Your task to perform on an android device: turn smart compose on in the gmail app Image 0: 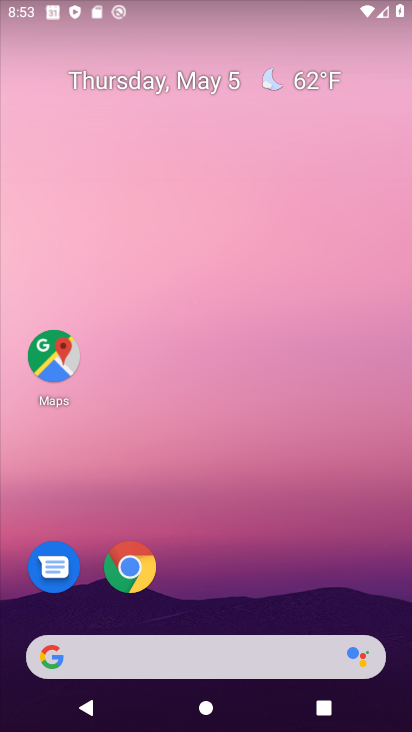
Step 0: drag from (227, 727) to (224, 204)
Your task to perform on an android device: turn smart compose on in the gmail app Image 1: 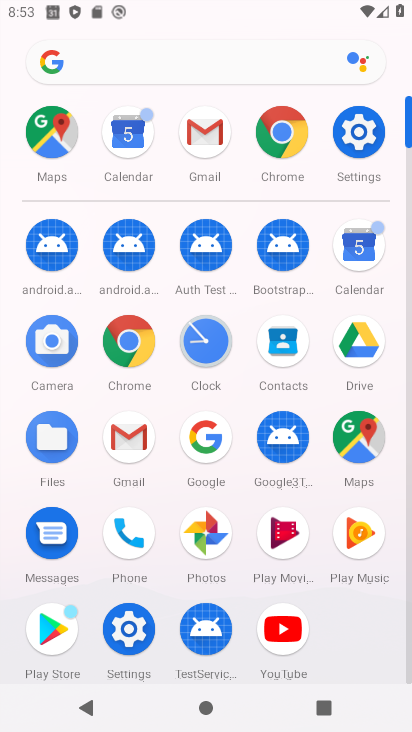
Step 1: click (124, 441)
Your task to perform on an android device: turn smart compose on in the gmail app Image 2: 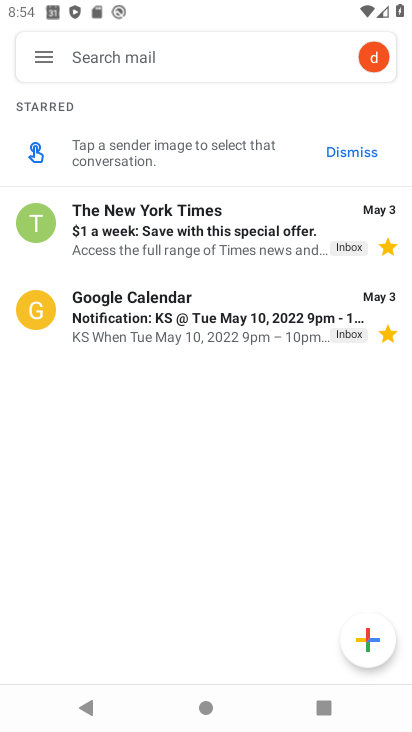
Step 2: click (40, 56)
Your task to perform on an android device: turn smart compose on in the gmail app Image 3: 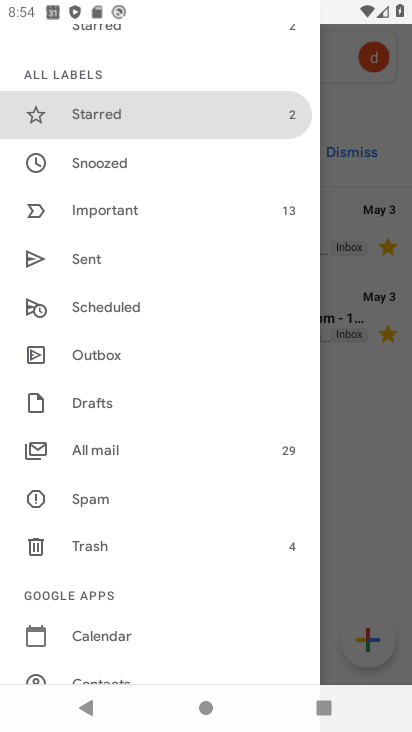
Step 3: drag from (108, 655) to (108, 281)
Your task to perform on an android device: turn smart compose on in the gmail app Image 4: 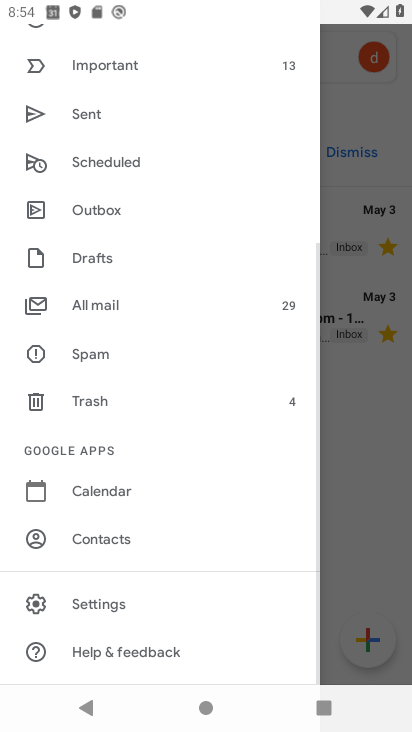
Step 4: click (95, 600)
Your task to perform on an android device: turn smart compose on in the gmail app Image 5: 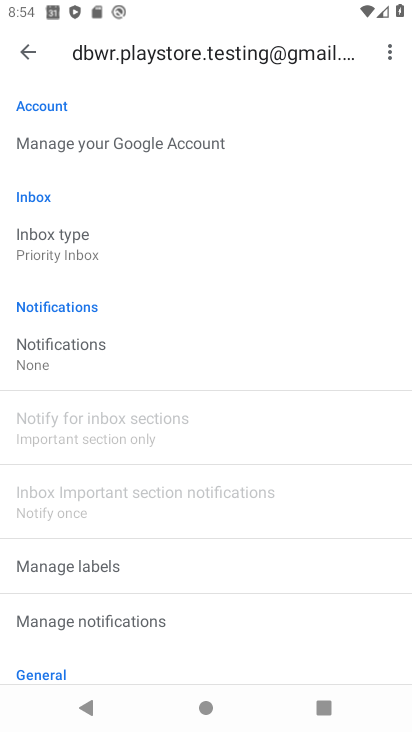
Step 5: task complete